Your task to perform on an android device: What's the weather going to be tomorrow? Image 0: 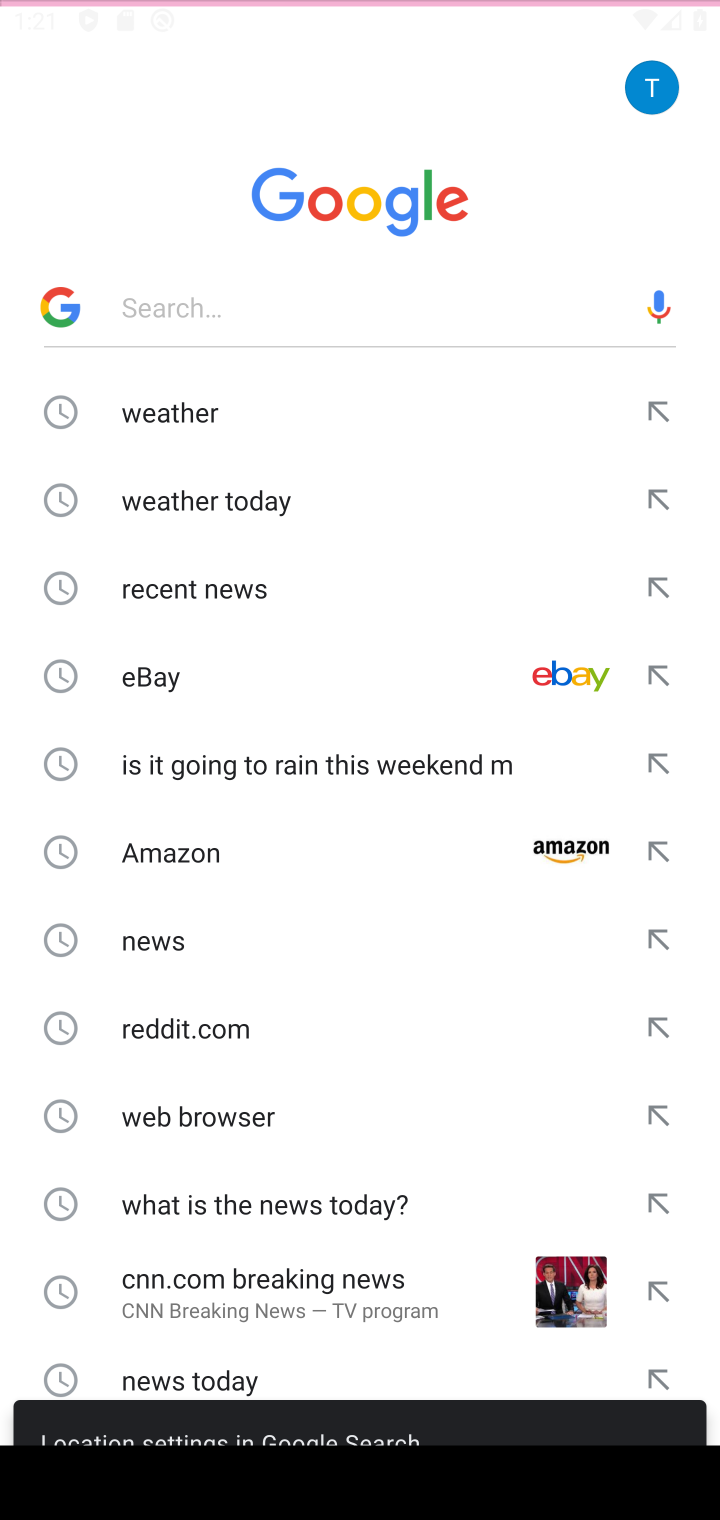
Step 0: press home button
Your task to perform on an android device: What's the weather going to be tomorrow? Image 1: 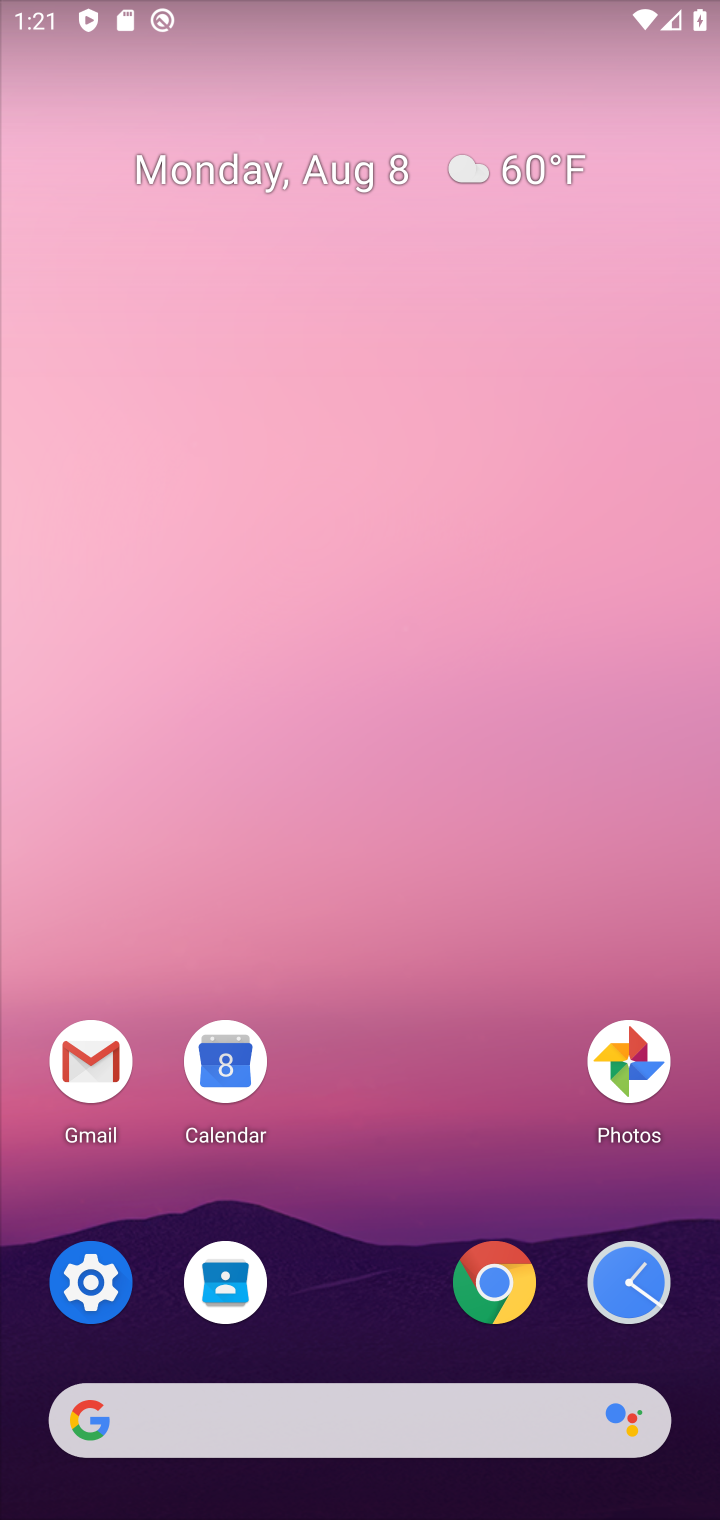
Step 1: click (352, 1424)
Your task to perform on an android device: What's the weather going to be tomorrow? Image 2: 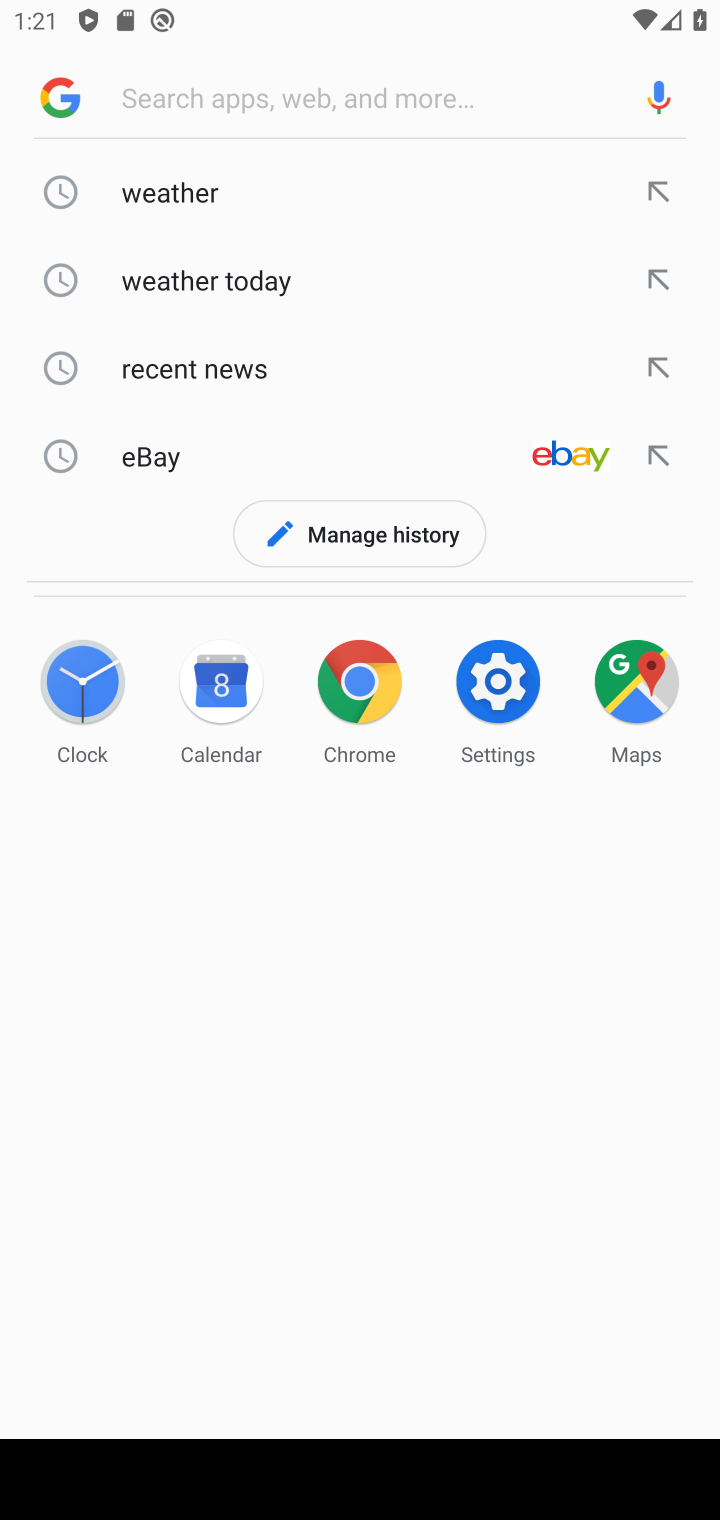
Step 2: click (191, 191)
Your task to perform on an android device: What's the weather going to be tomorrow? Image 3: 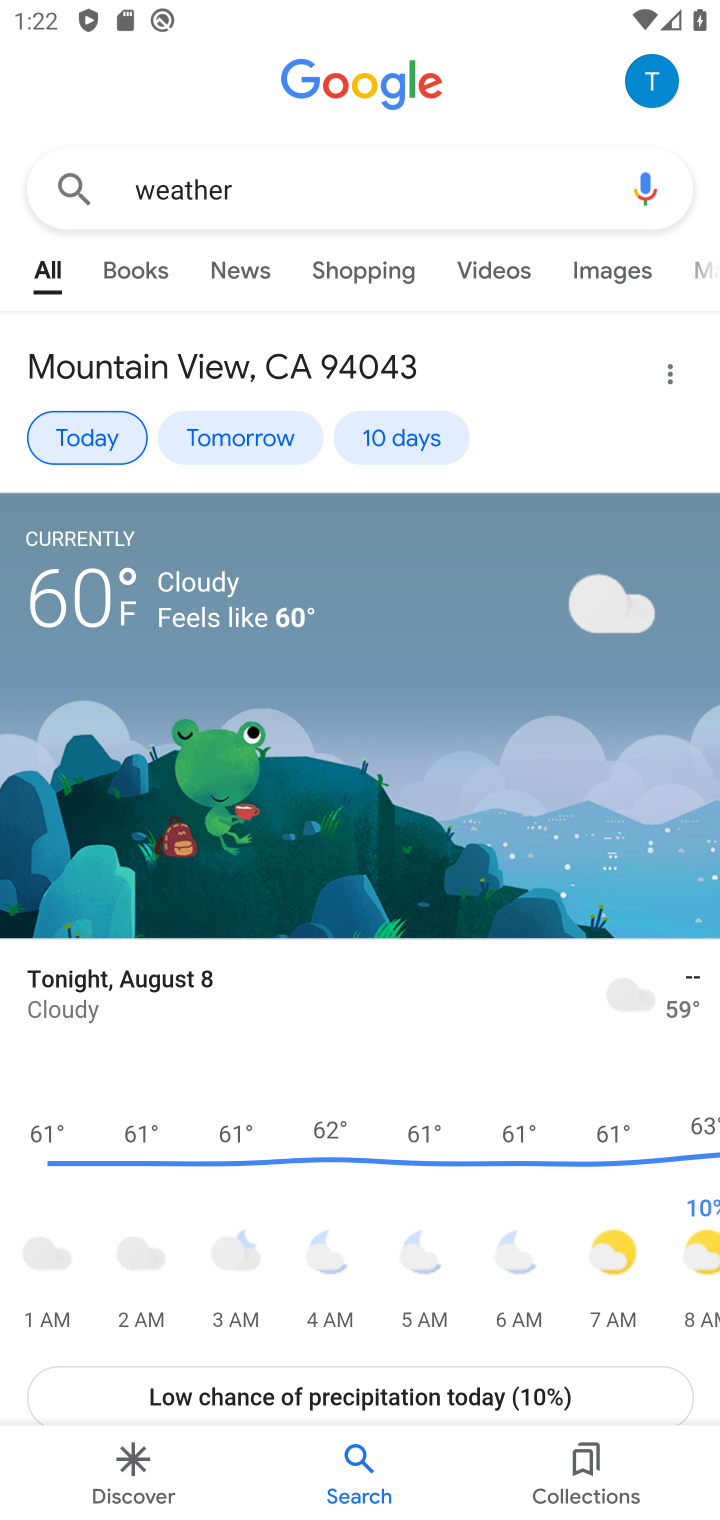
Step 3: click (238, 446)
Your task to perform on an android device: What's the weather going to be tomorrow? Image 4: 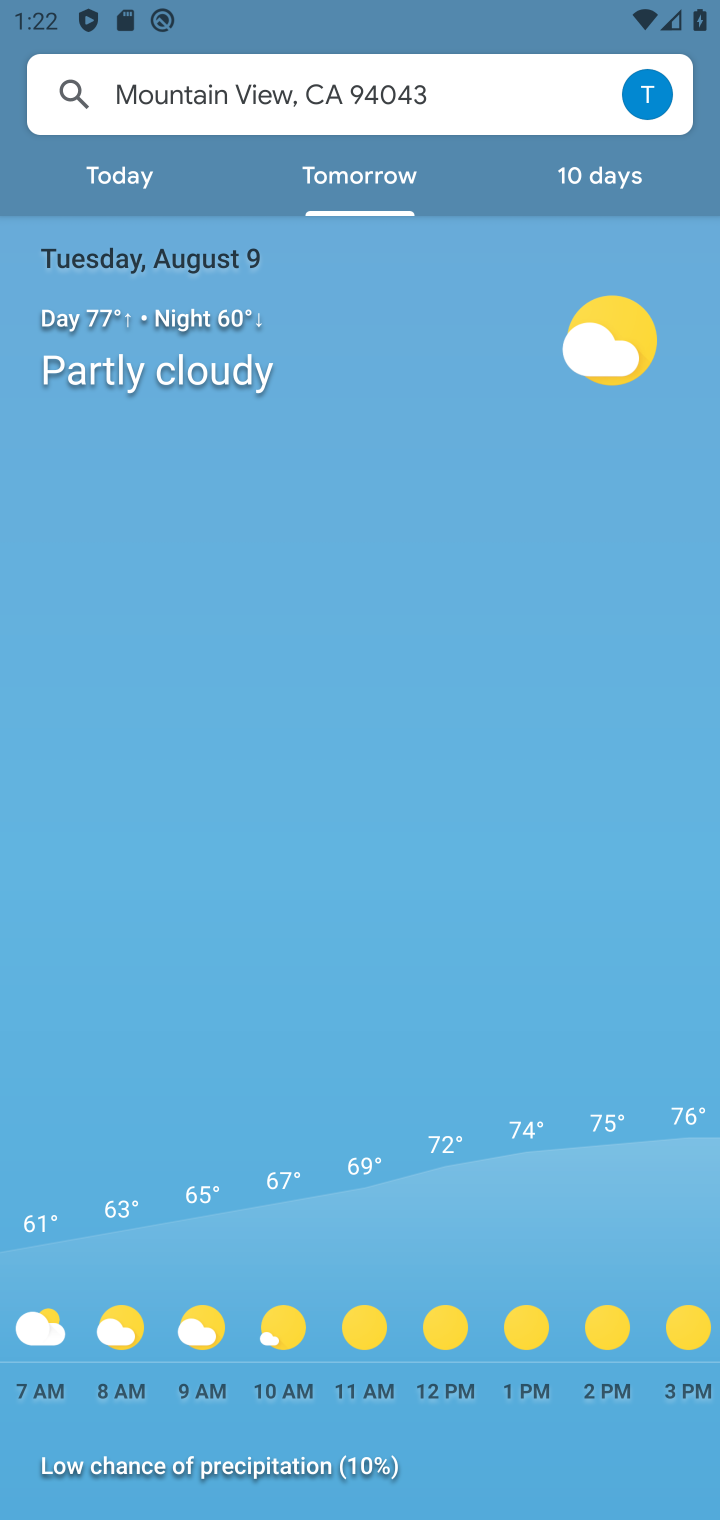
Step 4: task complete